Your task to perform on an android device: Open Maps and search for coffee Image 0: 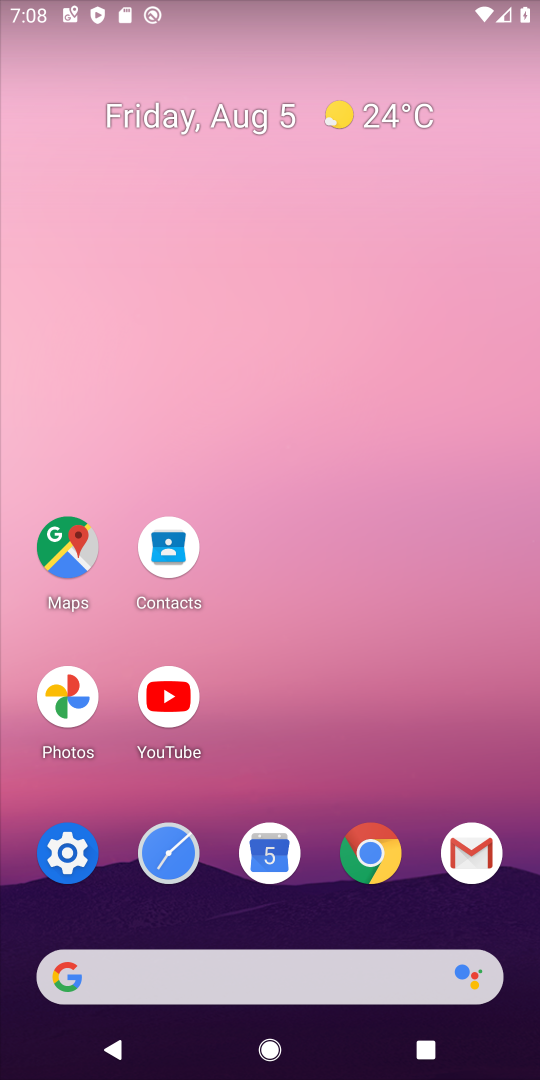
Step 0: click (70, 549)
Your task to perform on an android device: Open Maps and search for coffee Image 1: 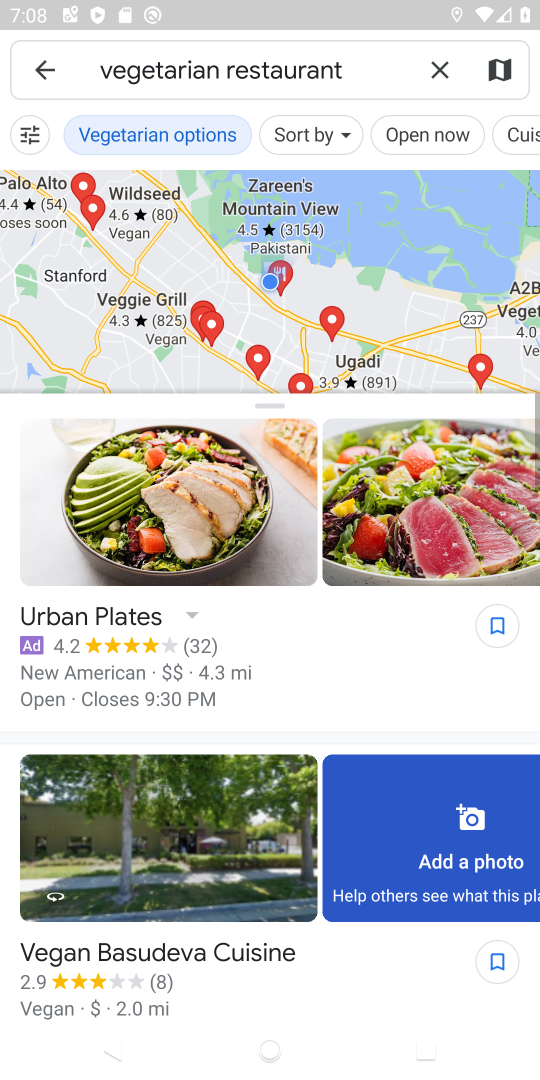
Step 1: click (433, 66)
Your task to perform on an android device: Open Maps and search for coffee Image 2: 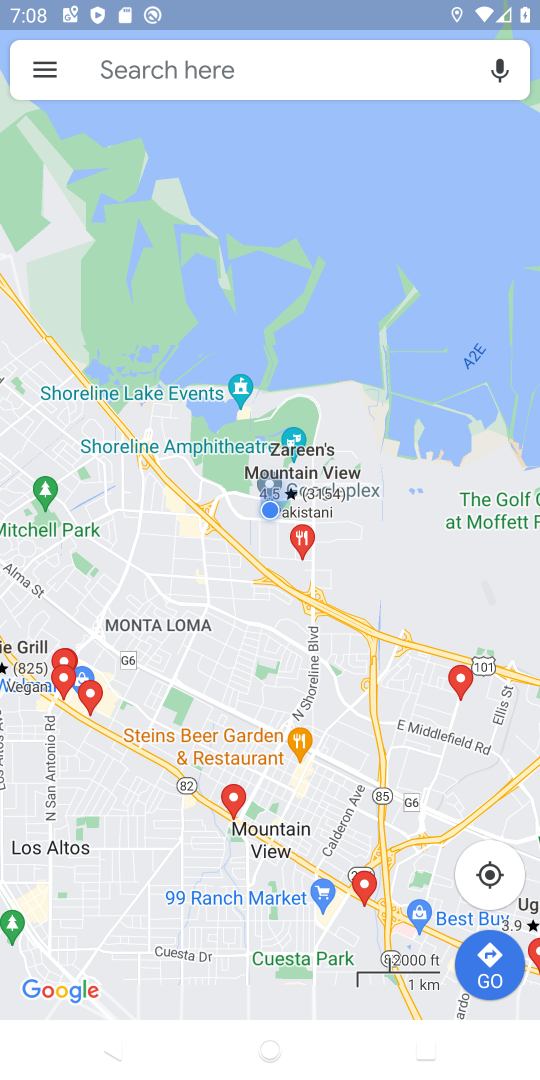
Step 2: click (335, 67)
Your task to perform on an android device: Open Maps and search for coffee Image 3: 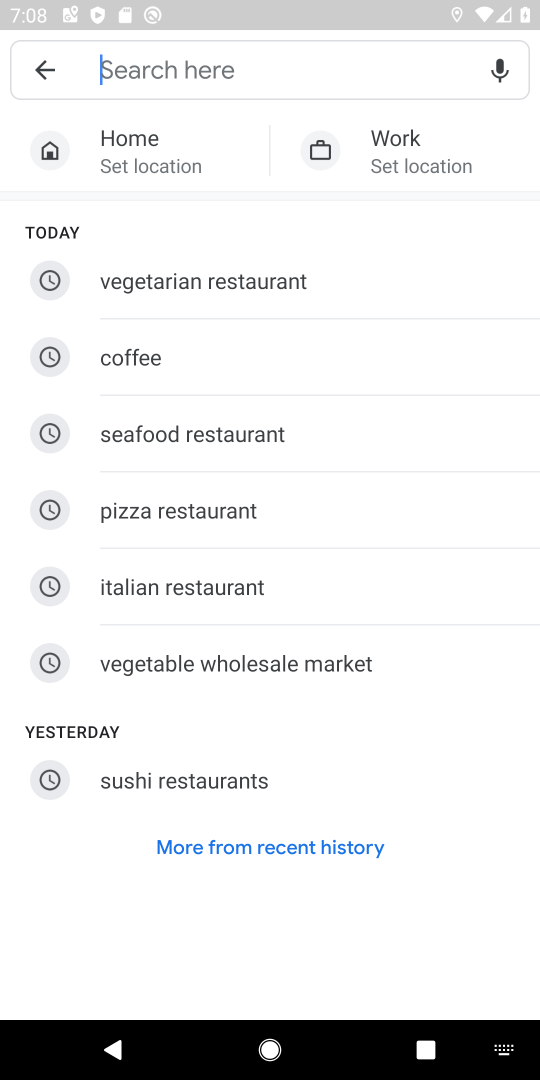
Step 3: click (144, 354)
Your task to perform on an android device: Open Maps and search for coffee Image 4: 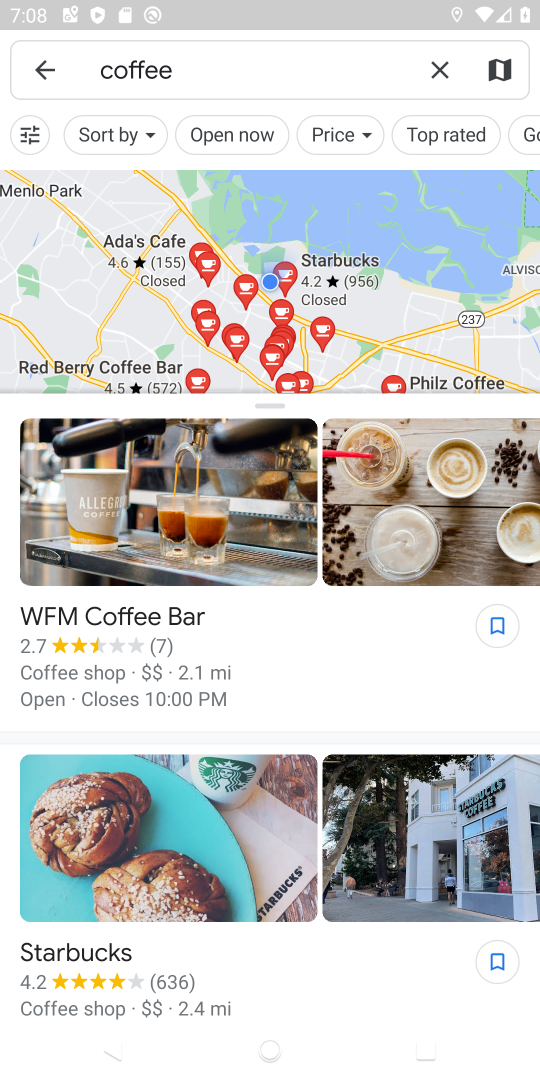
Step 4: task complete